Your task to perform on an android device: open chrome and create a bookmark for the current page Image 0: 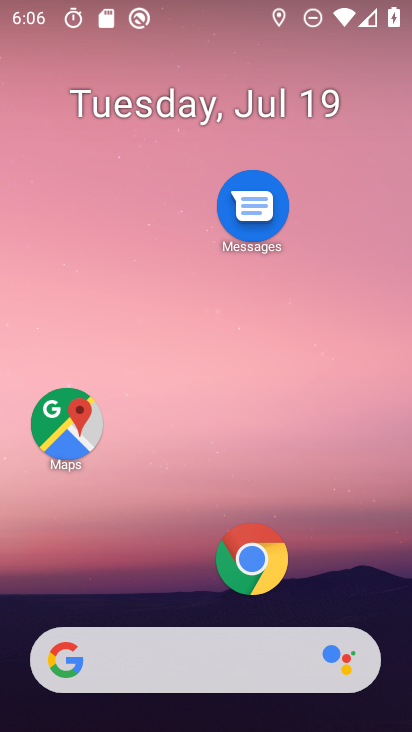
Step 0: drag from (111, 544) to (205, 113)
Your task to perform on an android device: open chrome and create a bookmark for the current page Image 1: 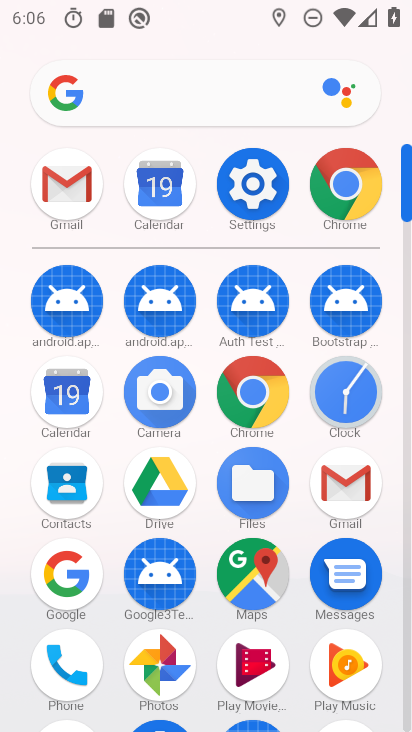
Step 1: click (343, 188)
Your task to perform on an android device: open chrome and create a bookmark for the current page Image 2: 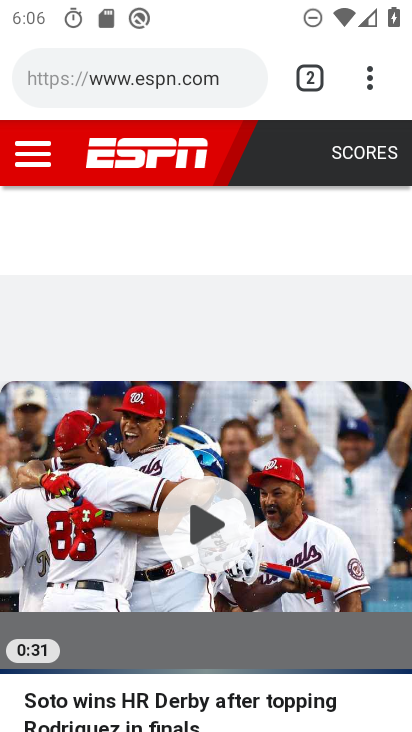
Step 2: task complete